Your task to perform on an android device: turn on the 12-hour format for clock Image 0: 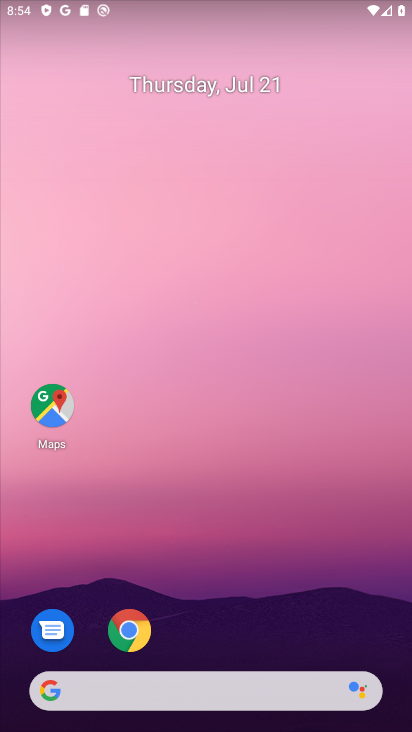
Step 0: drag from (197, 627) to (171, 62)
Your task to perform on an android device: turn on the 12-hour format for clock Image 1: 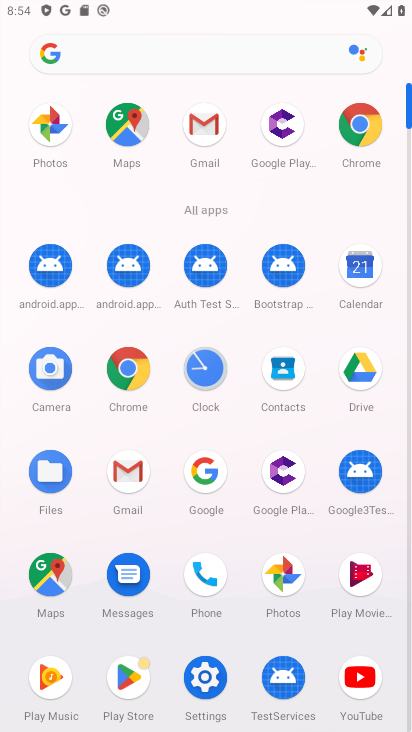
Step 1: click (205, 374)
Your task to perform on an android device: turn on the 12-hour format for clock Image 2: 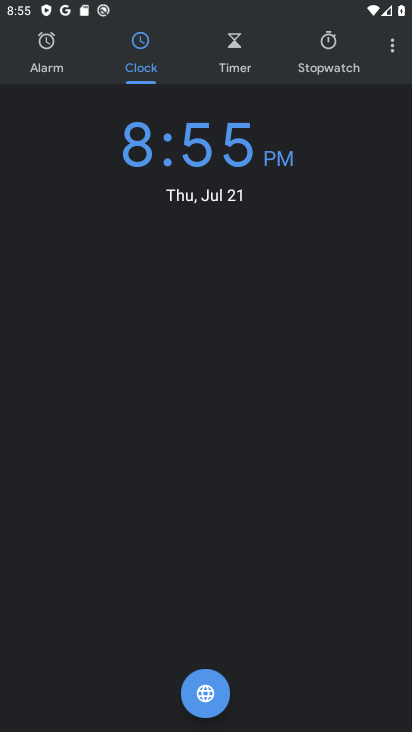
Step 2: click (385, 38)
Your task to perform on an android device: turn on the 12-hour format for clock Image 3: 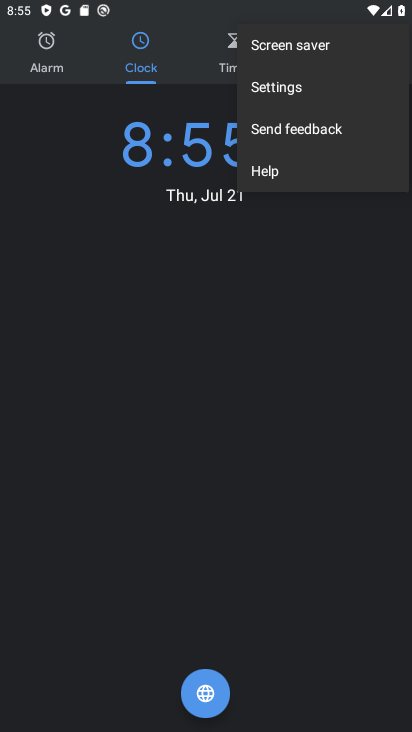
Step 3: click (280, 102)
Your task to perform on an android device: turn on the 12-hour format for clock Image 4: 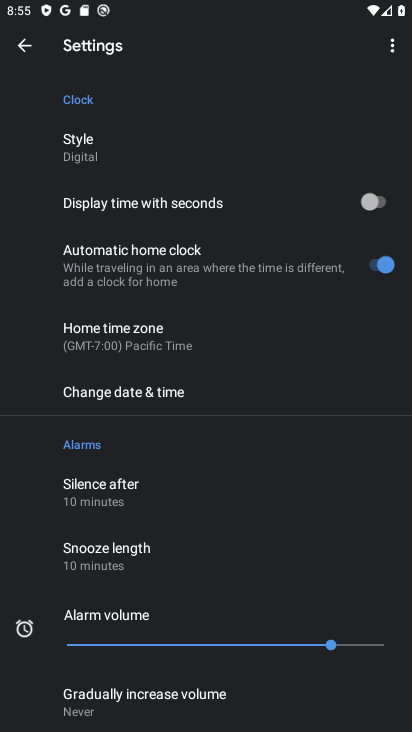
Step 4: click (183, 398)
Your task to perform on an android device: turn on the 12-hour format for clock Image 5: 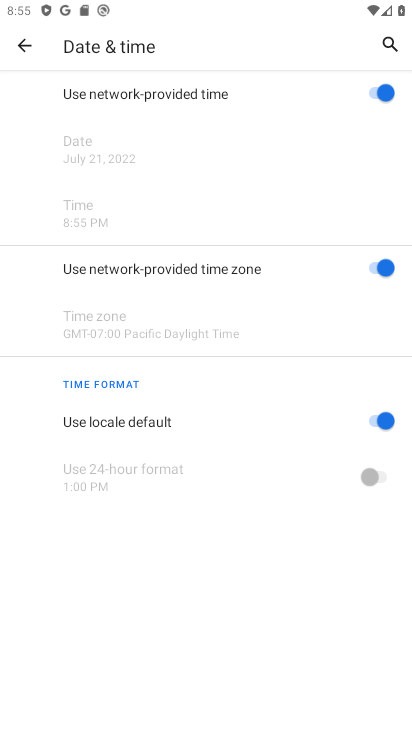
Step 5: click (379, 428)
Your task to perform on an android device: turn on the 12-hour format for clock Image 6: 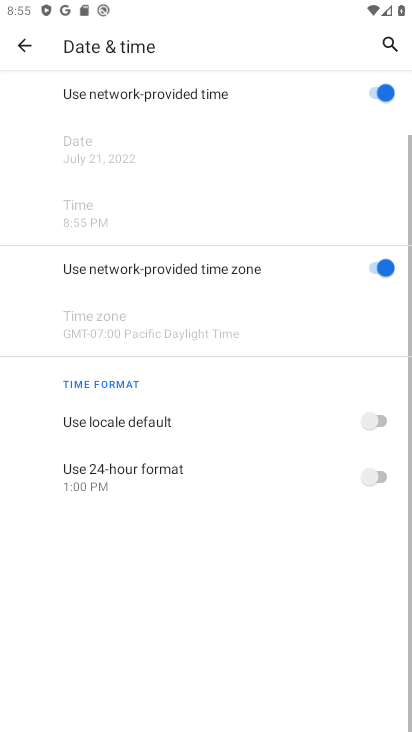
Step 6: click (376, 469)
Your task to perform on an android device: turn on the 12-hour format for clock Image 7: 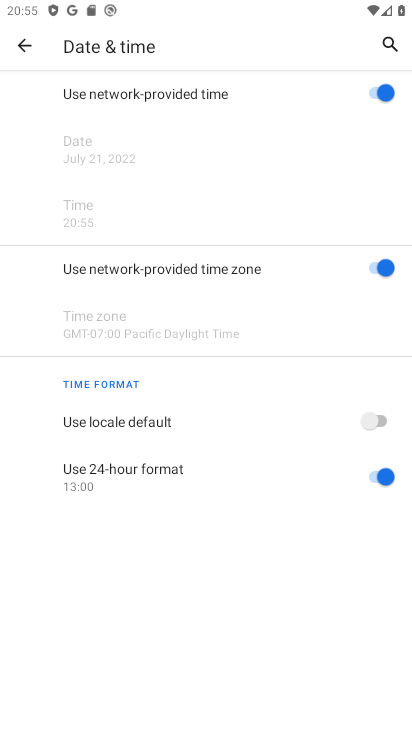
Step 7: task complete